Your task to perform on an android device: turn on notifications settings in the gmail app Image 0: 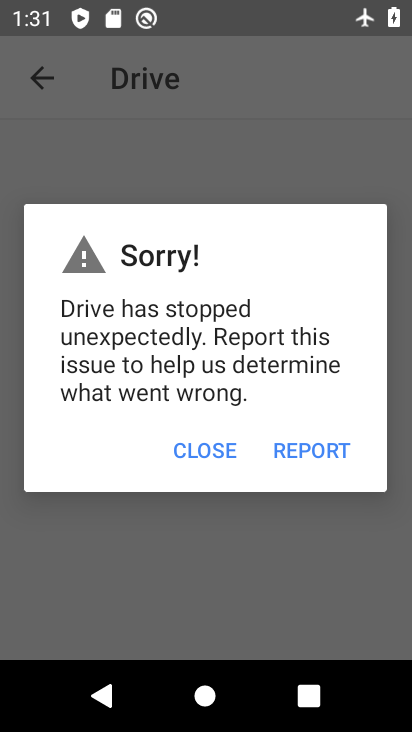
Step 0: press home button
Your task to perform on an android device: turn on notifications settings in the gmail app Image 1: 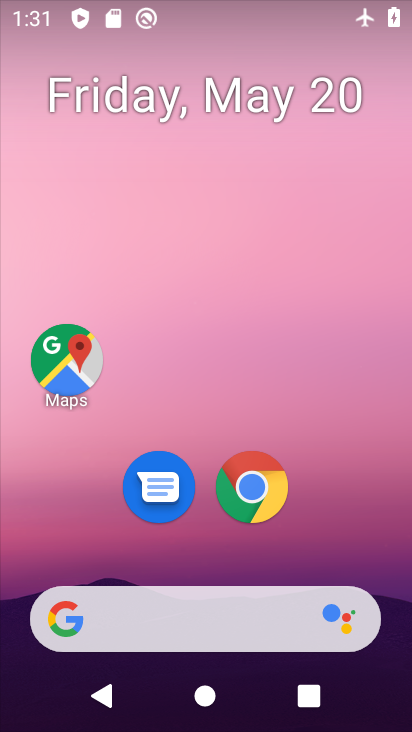
Step 1: drag from (319, 340) to (224, 0)
Your task to perform on an android device: turn on notifications settings in the gmail app Image 2: 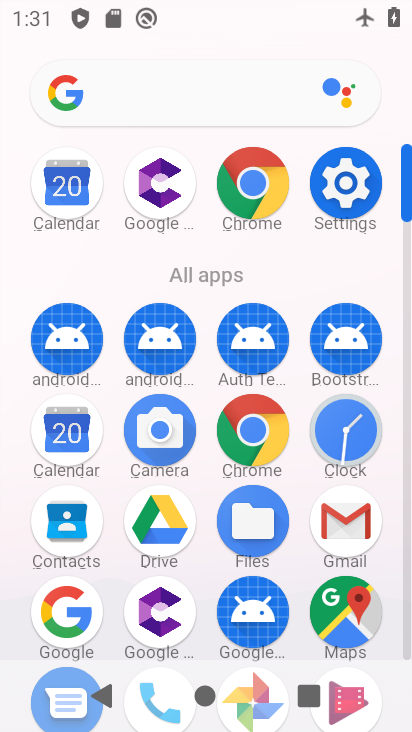
Step 2: click (348, 516)
Your task to perform on an android device: turn on notifications settings in the gmail app Image 3: 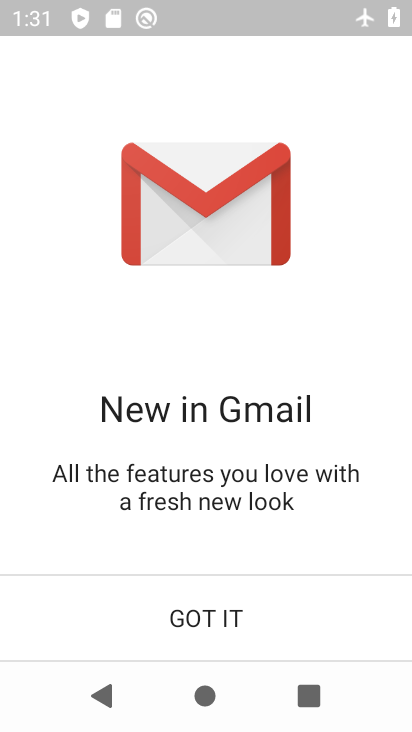
Step 3: click (201, 625)
Your task to perform on an android device: turn on notifications settings in the gmail app Image 4: 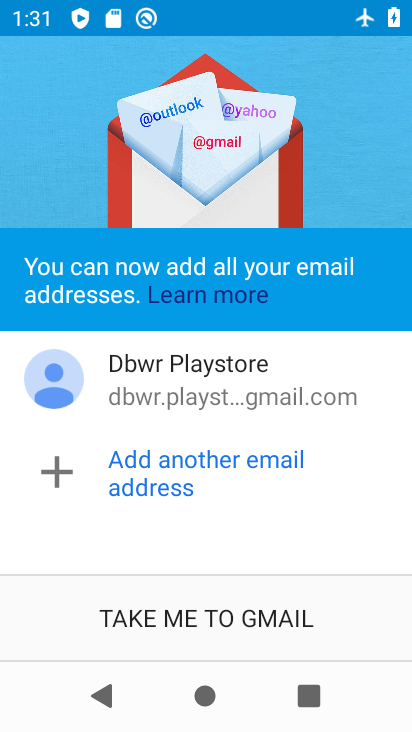
Step 4: click (201, 625)
Your task to perform on an android device: turn on notifications settings in the gmail app Image 5: 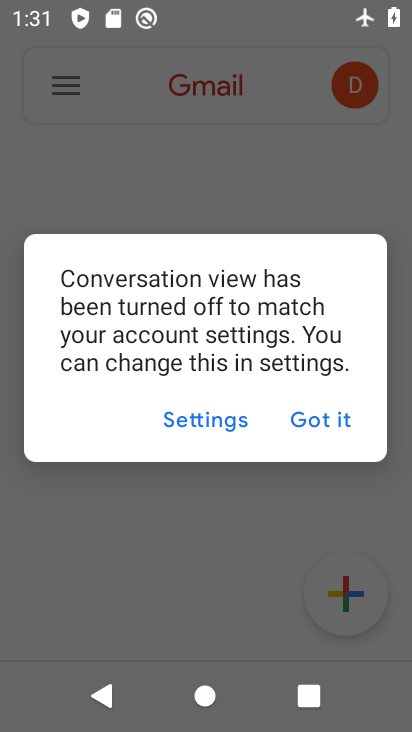
Step 5: click (321, 428)
Your task to perform on an android device: turn on notifications settings in the gmail app Image 6: 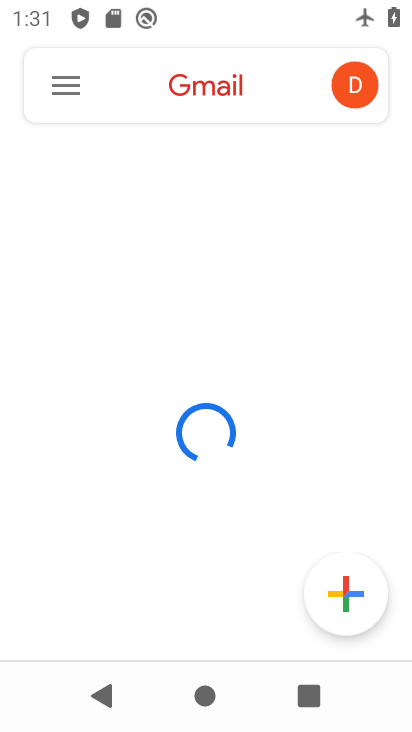
Step 6: click (64, 82)
Your task to perform on an android device: turn on notifications settings in the gmail app Image 7: 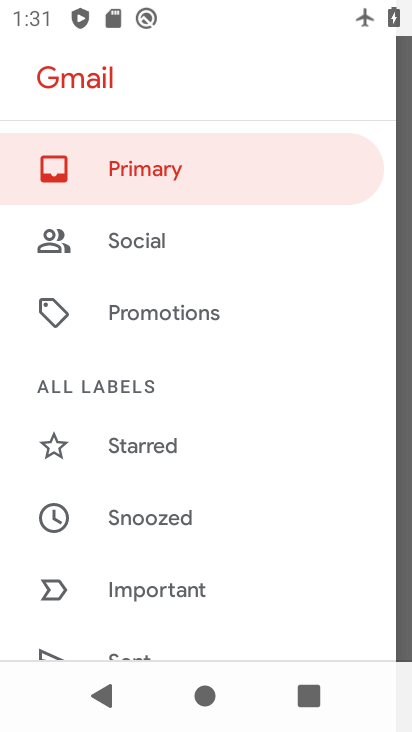
Step 7: drag from (208, 623) to (143, 173)
Your task to perform on an android device: turn on notifications settings in the gmail app Image 8: 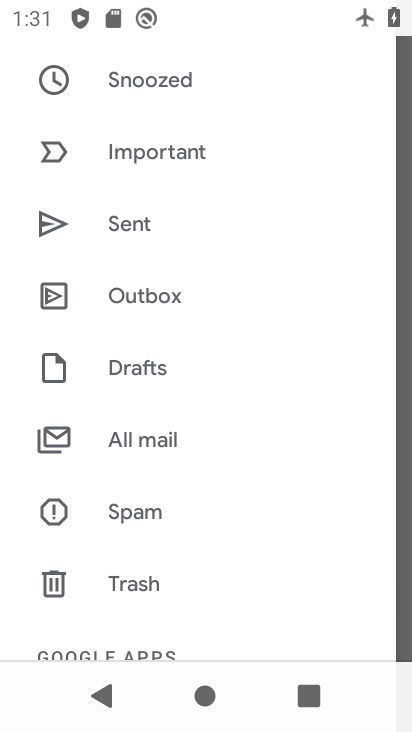
Step 8: drag from (165, 565) to (158, 105)
Your task to perform on an android device: turn on notifications settings in the gmail app Image 9: 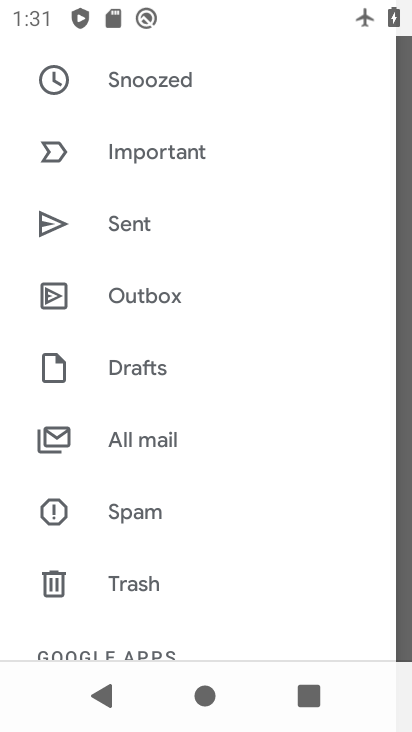
Step 9: drag from (132, 490) to (124, 163)
Your task to perform on an android device: turn on notifications settings in the gmail app Image 10: 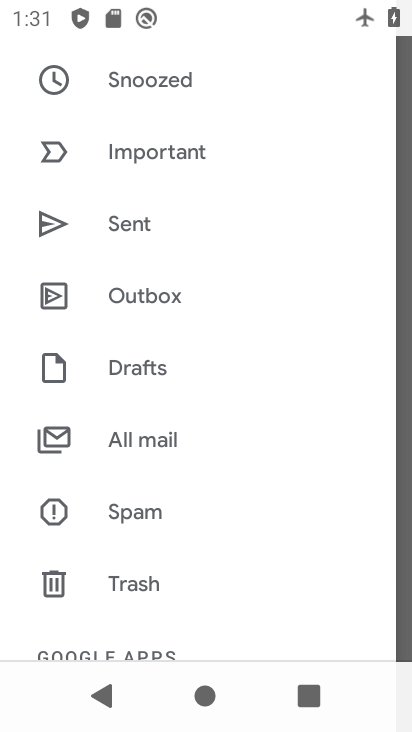
Step 10: drag from (93, 532) to (104, 171)
Your task to perform on an android device: turn on notifications settings in the gmail app Image 11: 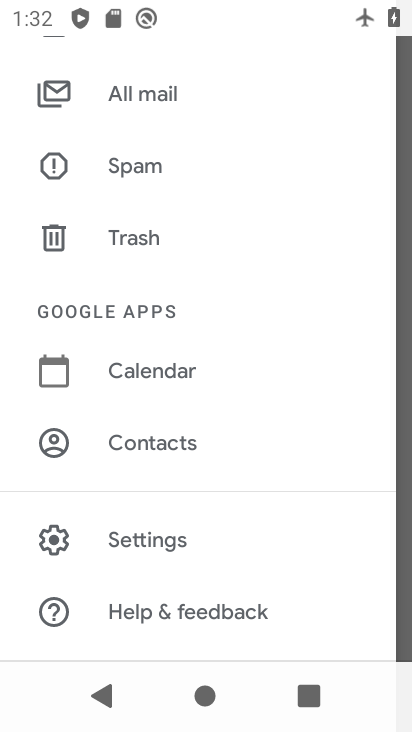
Step 11: click (121, 534)
Your task to perform on an android device: turn on notifications settings in the gmail app Image 12: 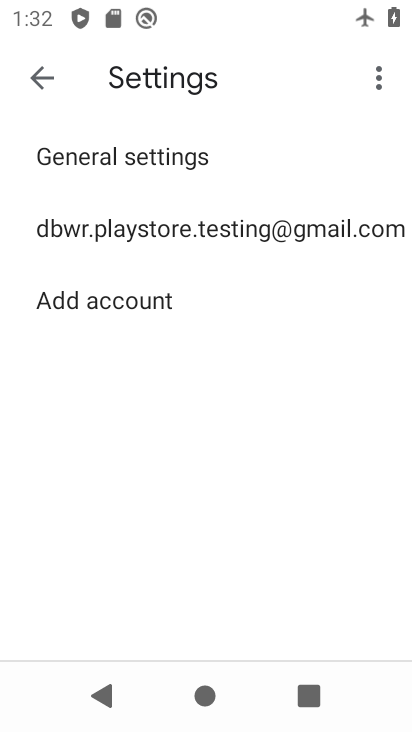
Step 12: click (72, 234)
Your task to perform on an android device: turn on notifications settings in the gmail app Image 13: 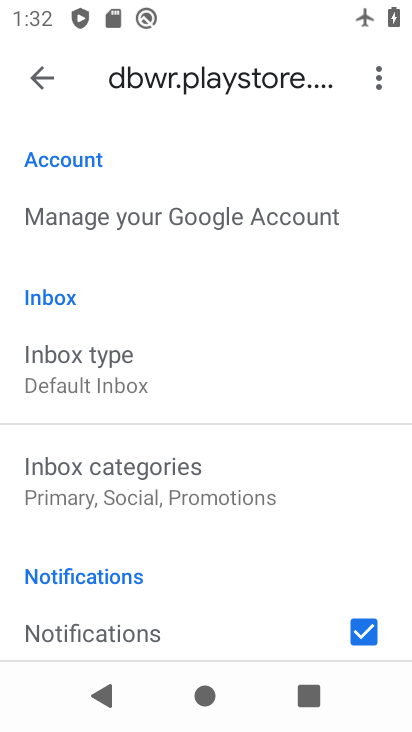
Step 13: task complete